Your task to perform on an android device: Open sound settings Image 0: 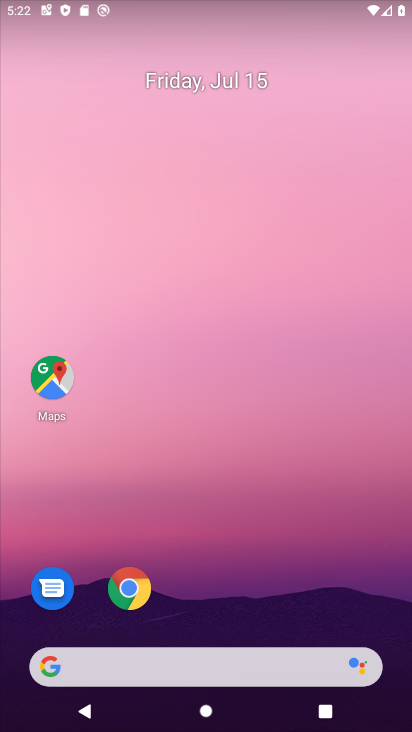
Step 0: drag from (249, 621) to (306, 157)
Your task to perform on an android device: Open sound settings Image 1: 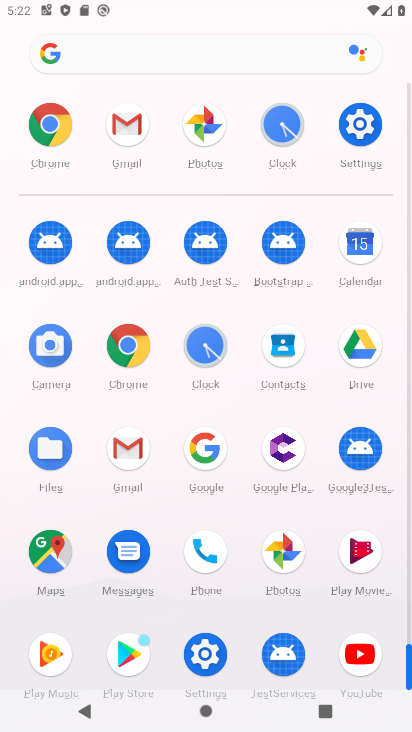
Step 1: click (355, 108)
Your task to perform on an android device: Open sound settings Image 2: 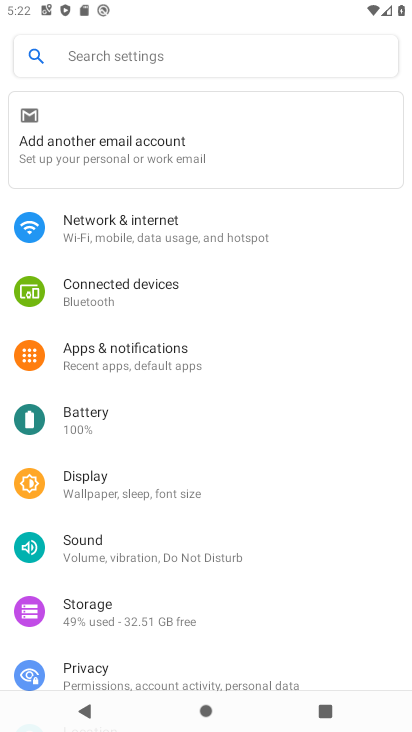
Step 2: click (115, 556)
Your task to perform on an android device: Open sound settings Image 3: 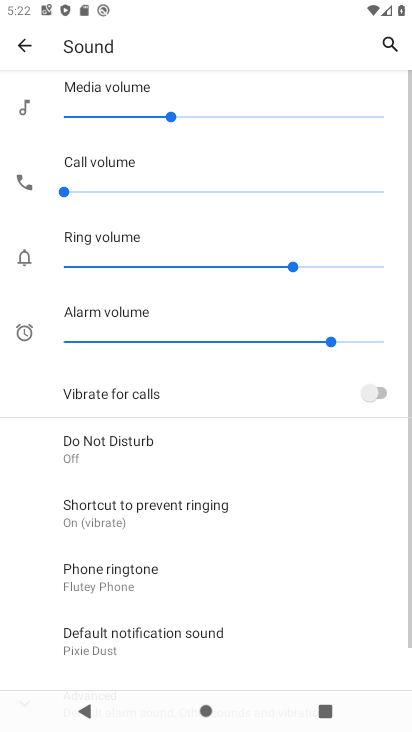
Step 3: task complete